Your task to perform on an android device: Go to notification settings Image 0: 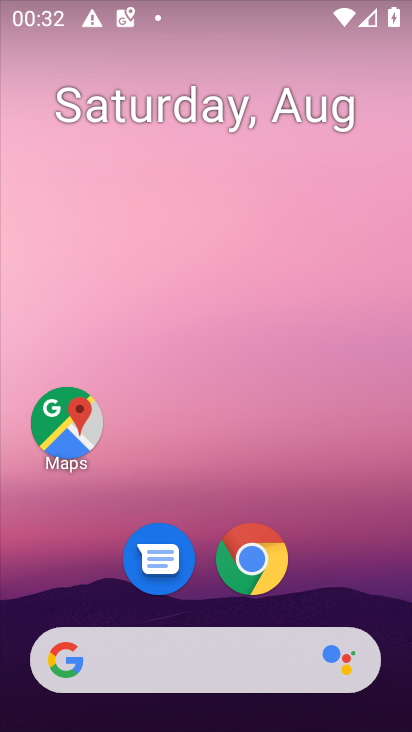
Step 0: drag from (376, 602) to (352, 72)
Your task to perform on an android device: Go to notification settings Image 1: 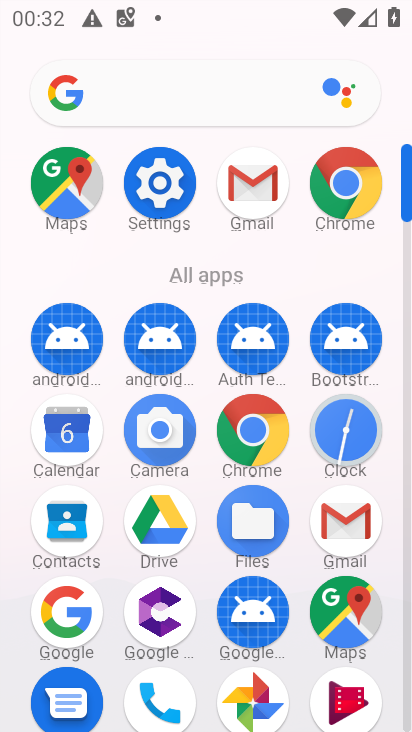
Step 1: click (166, 176)
Your task to perform on an android device: Go to notification settings Image 2: 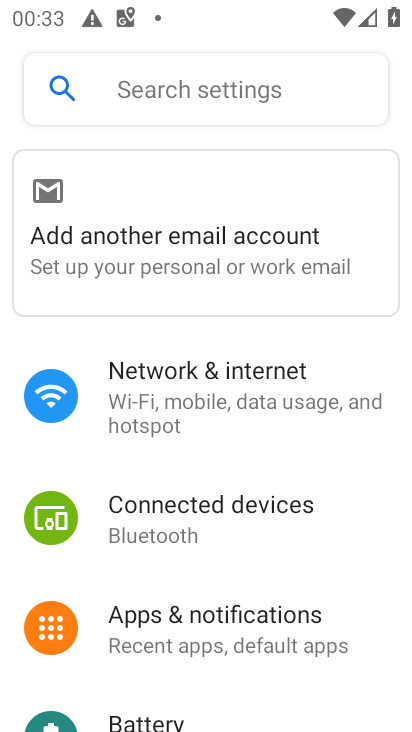
Step 2: click (232, 632)
Your task to perform on an android device: Go to notification settings Image 3: 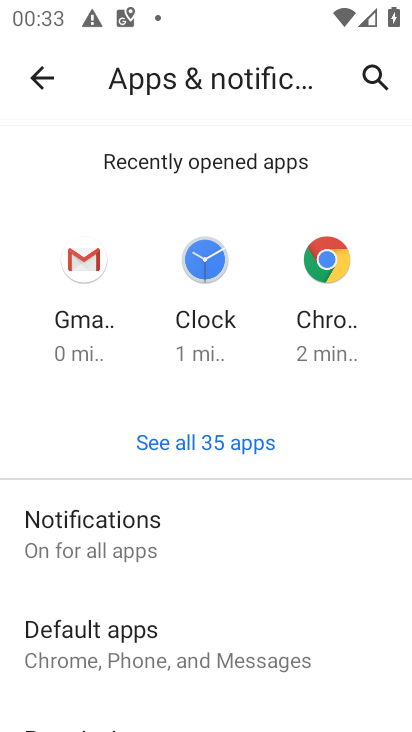
Step 3: click (226, 533)
Your task to perform on an android device: Go to notification settings Image 4: 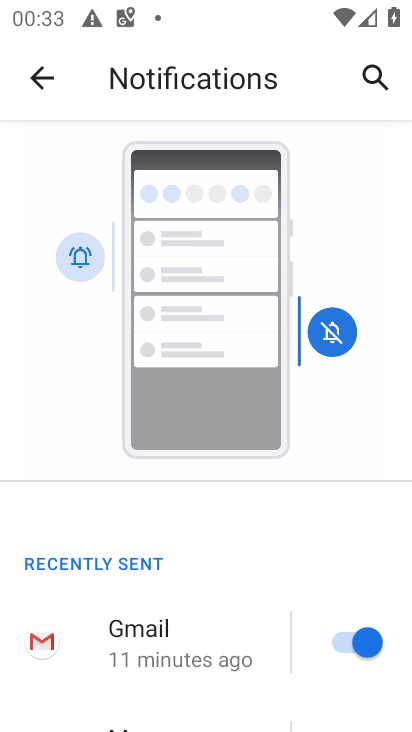
Step 4: task complete